Your task to perform on an android device: stop showing notifications on the lock screen Image 0: 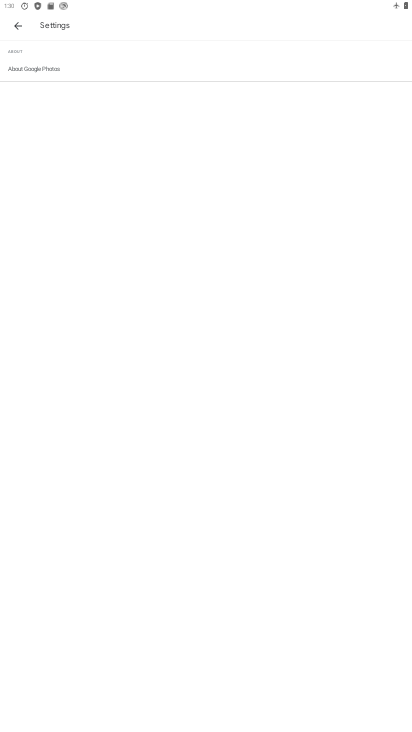
Step 0: press home button
Your task to perform on an android device: stop showing notifications on the lock screen Image 1: 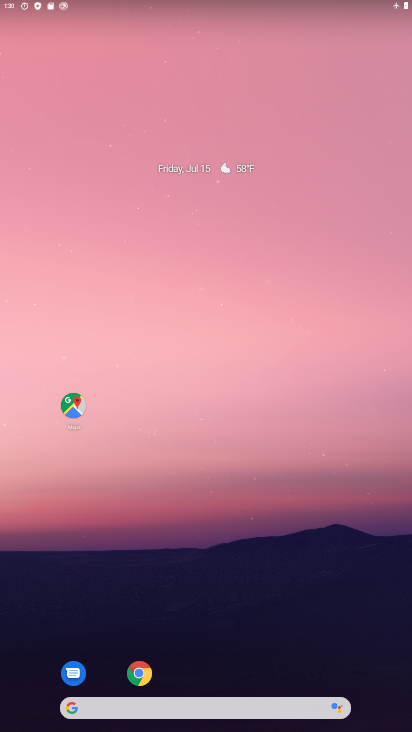
Step 1: drag from (232, 600) to (243, 53)
Your task to perform on an android device: stop showing notifications on the lock screen Image 2: 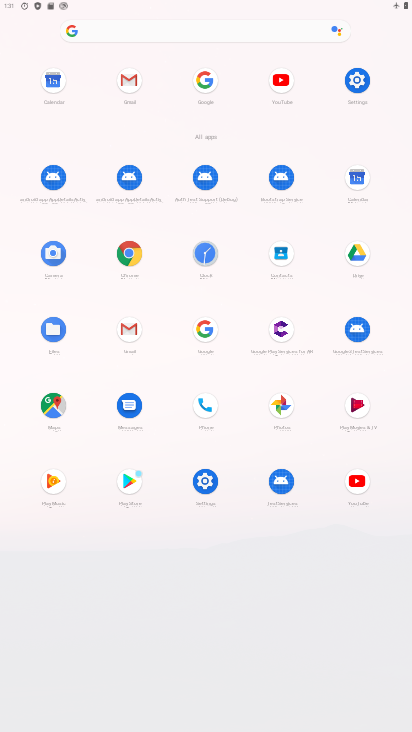
Step 2: click (356, 79)
Your task to perform on an android device: stop showing notifications on the lock screen Image 3: 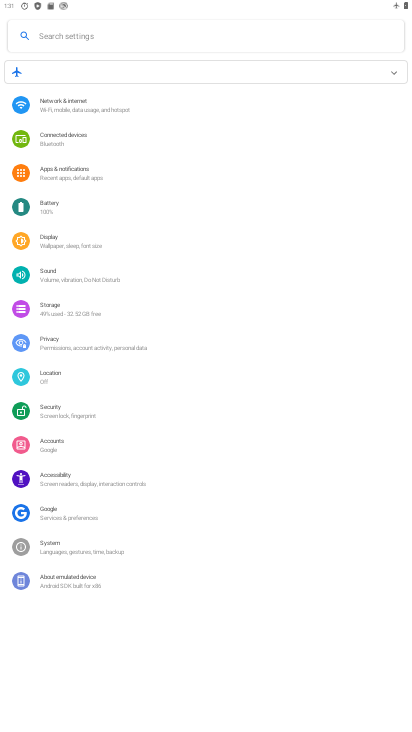
Step 3: click (90, 175)
Your task to perform on an android device: stop showing notifications on the lock screen Image 4: 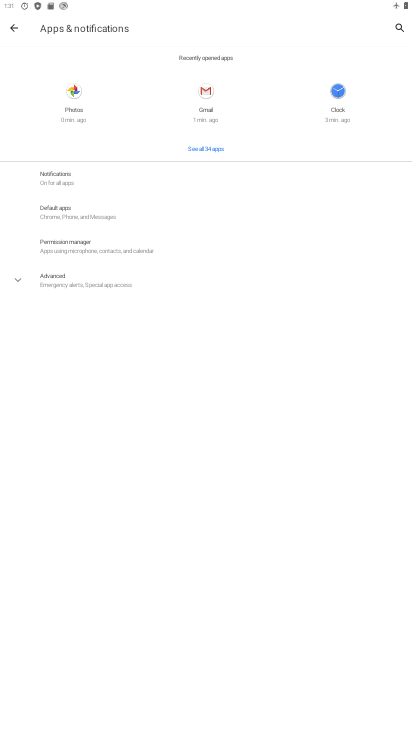
Step 4: click (76, 176)
Your task to perform on an android device: stop showing notifications on the lock screen Image 5: 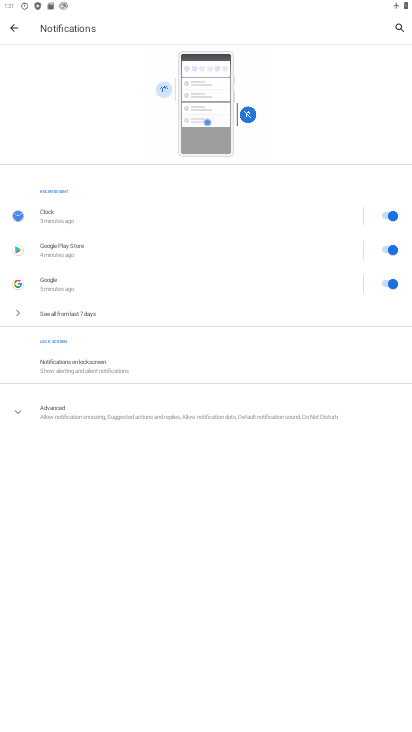
Step 5: click (99, 368)
Your task to perform on an android device: stop showing notifications on the lock screen Image 6: 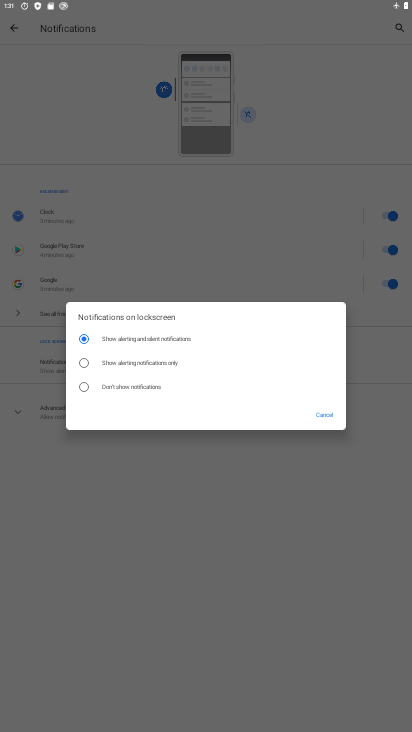
Step 6: click (87, 386)
Your task to perform on an android device: stop showing notifications on the lock screen Image 7: 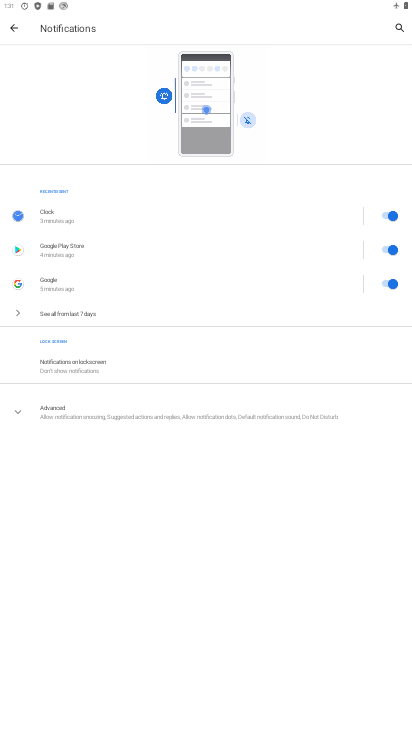
Step 7: task complete